Your task to perform on an android device: turn off notifications in google photos Image 0: 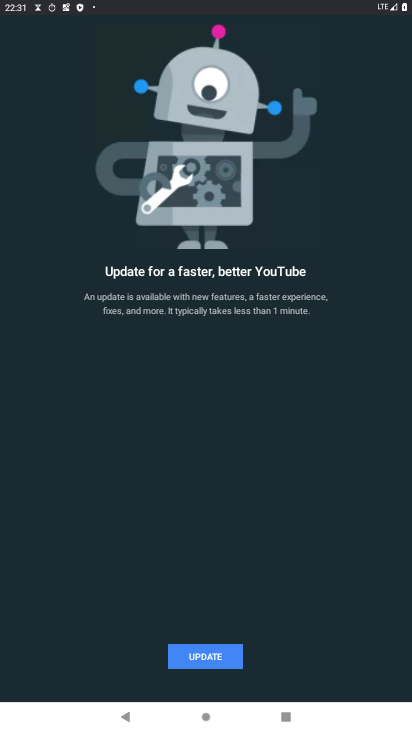
Step 0: press home button
Your task to perform on an android device: turn off notifications in google photos Image 1: 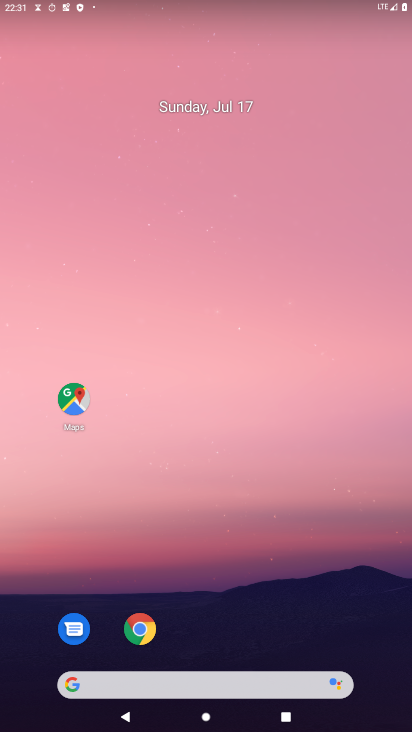
Step 1: drag from (221, 731) to (198, 105)
Your task to perform on an android device: turn off notifications in google photos Image 2: 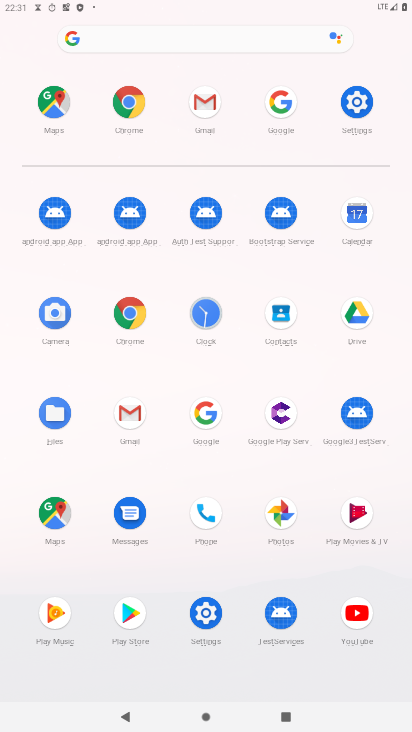
Step 2: click (59, 514)
Your task to perform on an android device: turn off notifications in google photos Image 3: 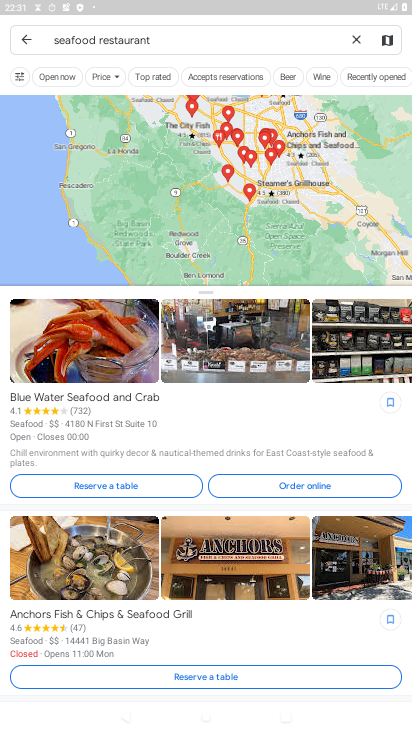
Step 3: click (25, 34)
Your task to perform on an android device: turn off notifications in google photos Image 4: 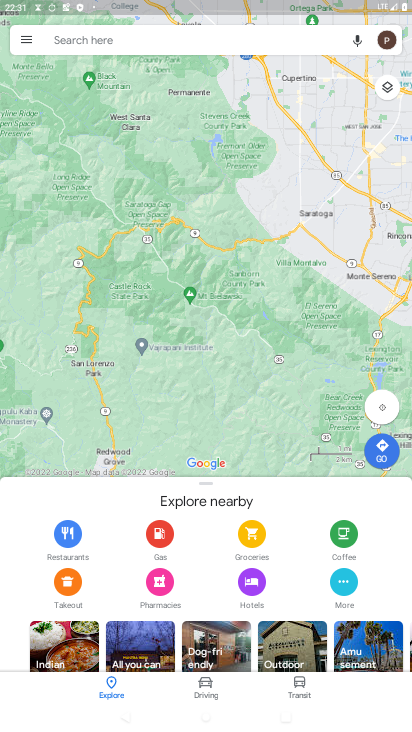
Step 4: click (24, 40)
Your task to perform on an android device: turn off notifications in google photos Image 5: 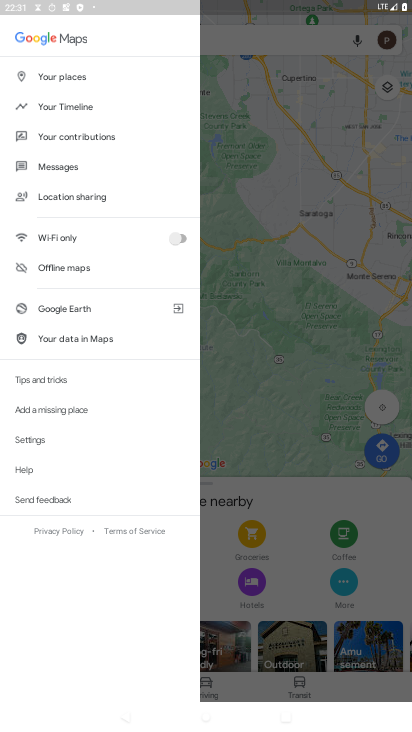
Step 5: press home button
Your task to perform on an android device: turn off notifications in google photos Image 6: 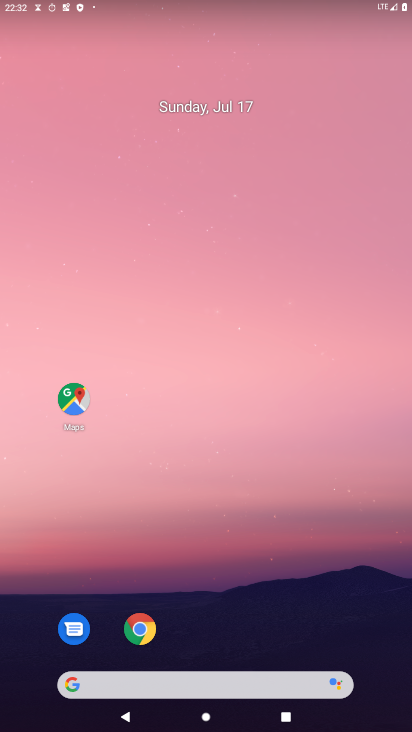
Step 6: drag from (235, 718) to (211, 86)
Your task to perform on an android device: turn off notifications in google photos Image 7: 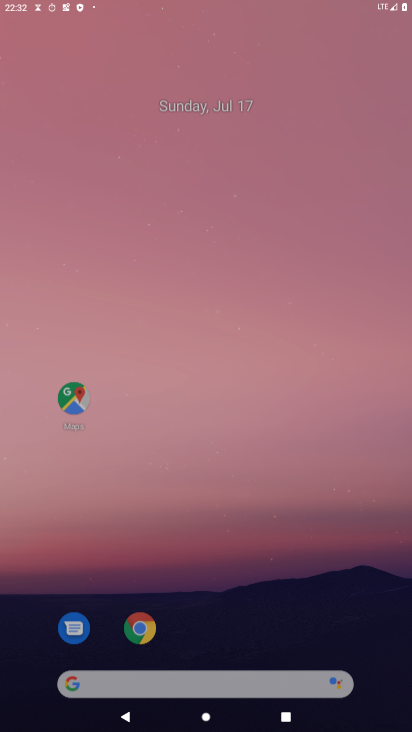
Step 7: drag from (234, 729) to (217, 90)
Your task to perform on an android device: turn off notifications in google photos Image 8: 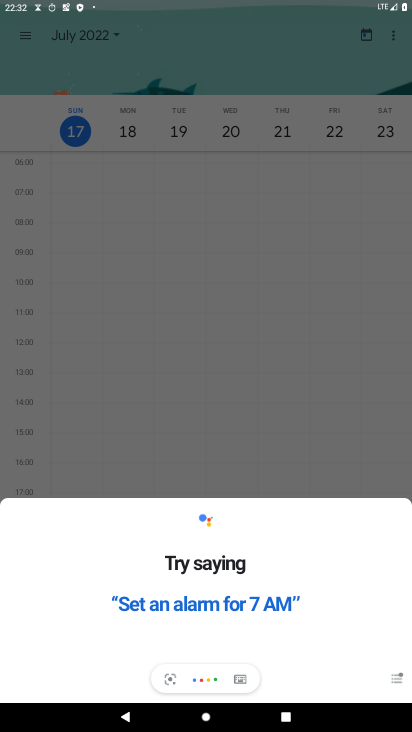
Step 8: press home button
Your task to perform on an android device: turn off notifications in google photos Image 9: 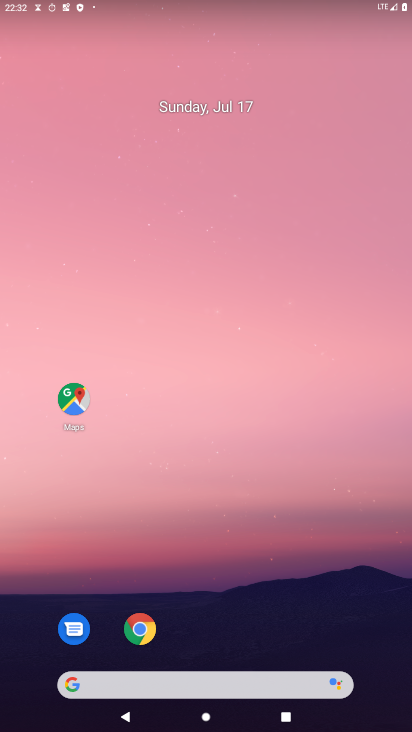
Step 9: drag from (237, 729) to (217, 153)
Your task to perform on an android device: turn off notifications in google photos Image 10: 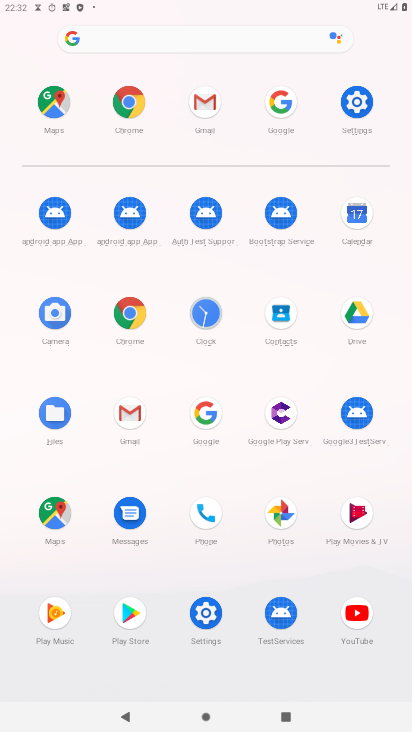
Step 10: click (277, 512)
Your task to perform on an android device: turn off notifications in google photos Image 11: 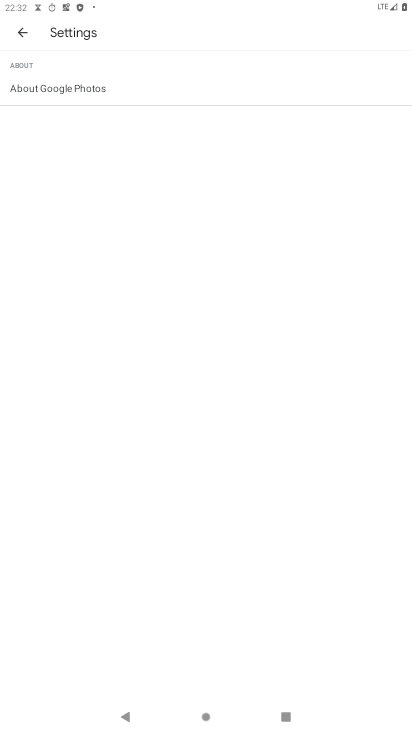
Step 11: click (23, 31)
Your task to perform on an android device: turn off notifications in google photos Image 12: 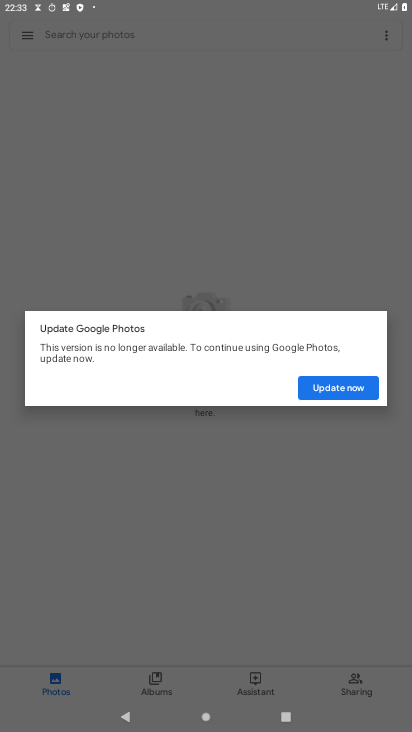
Step 12: task complete